Your task to perform on an android device: check android version Image 0: 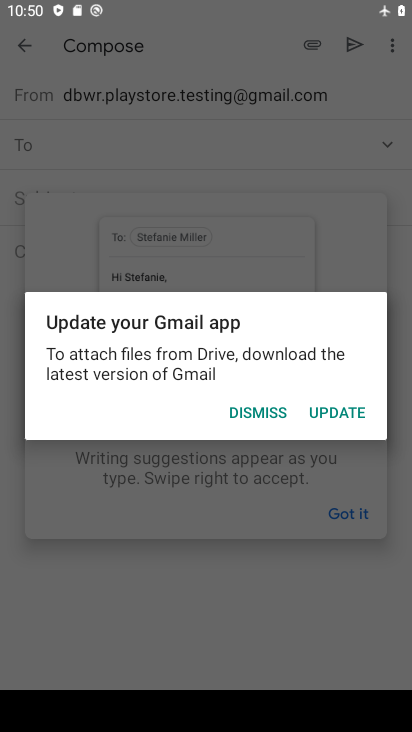
Step 0: press home button
Your task to perform on an android device: check android version Image 1: 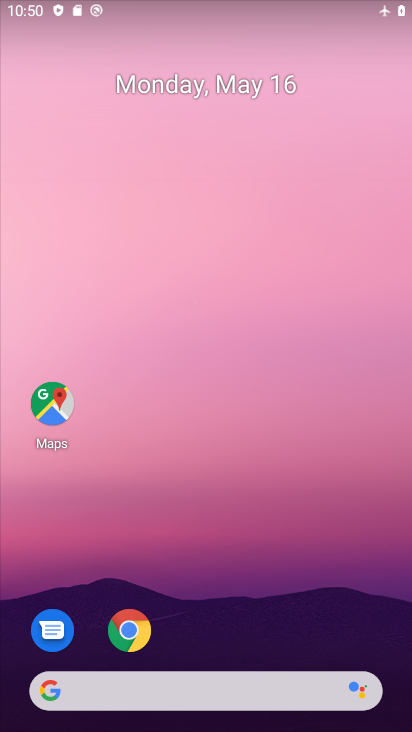
Step 1: drag from (247, 638) to (230, 202)
Your task to perform on an android device: check android version Image 2: 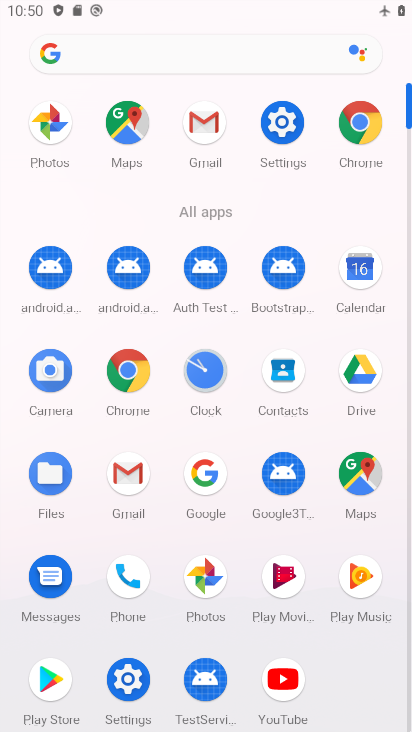
Step 2: click (289, 112)
Your task to perform on an android device: check android version Image 3: 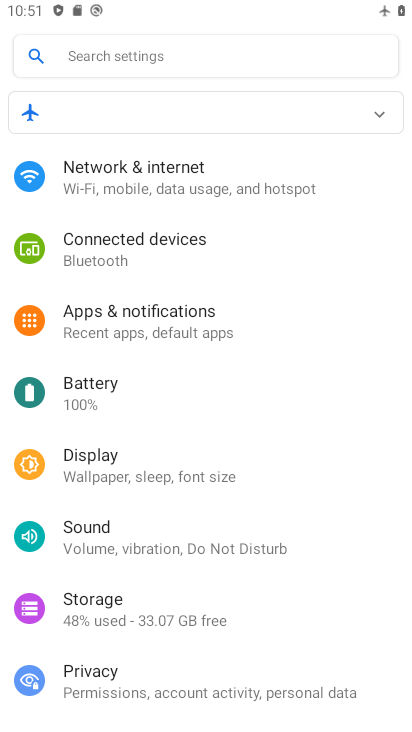
Step 3: task complete